Your task to perform on an android device: find photos in the google photos app Image 0: 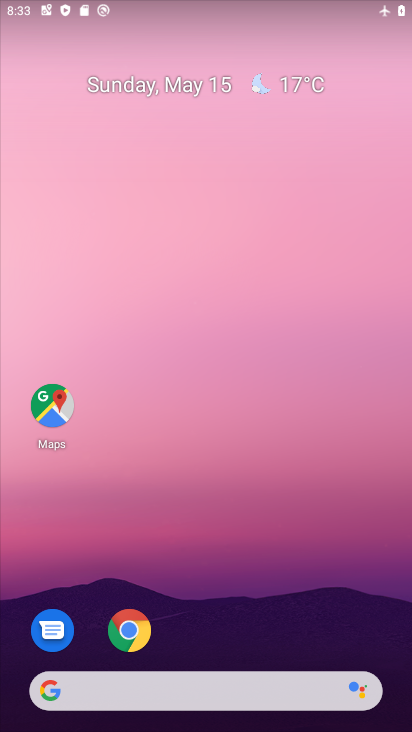
Step 0: drag from (251, 560) to (371, 0)
Your task to perform on an android device: find photos in the google photos app Image 1: 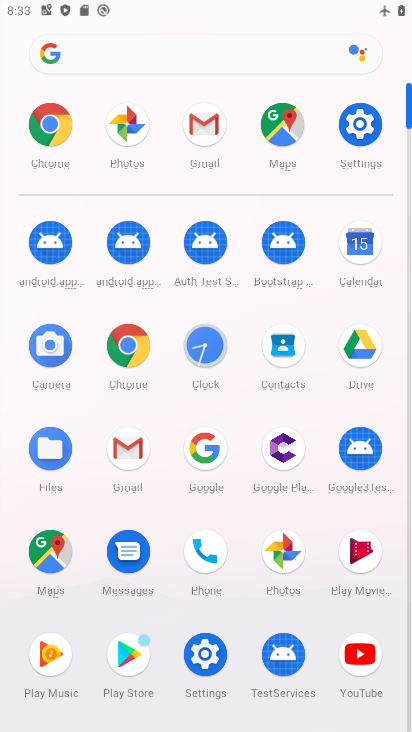
Step 1: click (277, 560)
Your task to perform on an android device: find photos in the google photos app Image 2: 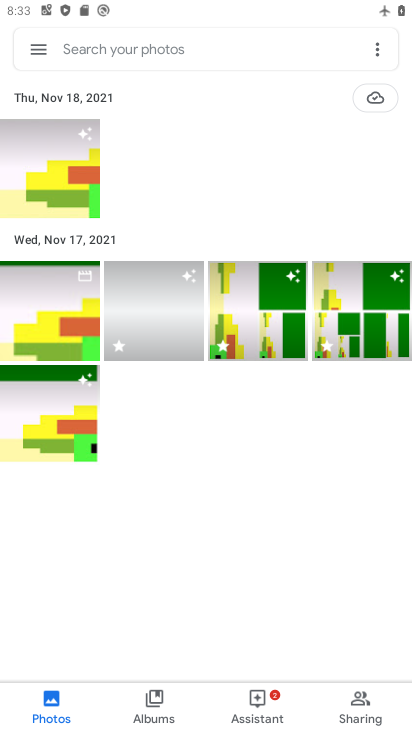
Step 2: click (21, 189)
Your task to perform on an android device: find photos in the google photos app Image 3: 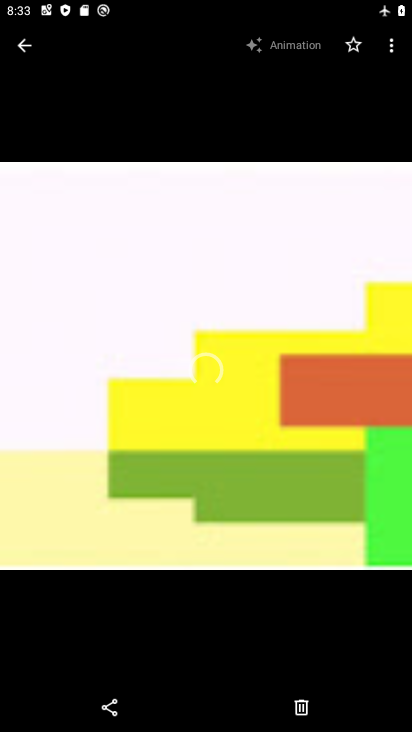
Step 3: task complete